Your task to perform on an android device: Open Youtube and go to the subscriptions tab Image 0: 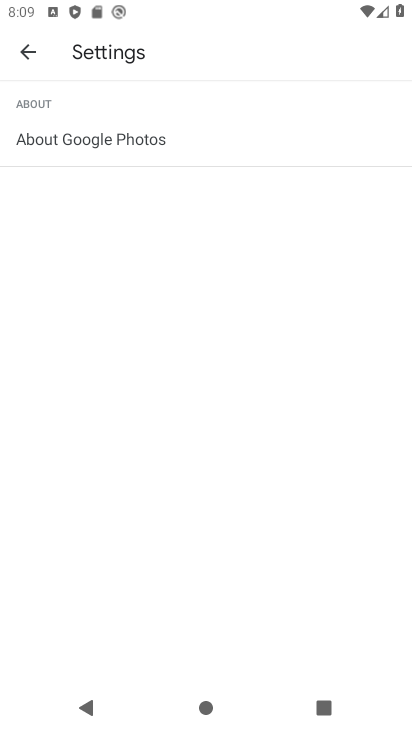
Step 0: press home button
Your task to perform on an android device: Open Youtube and go to the subscriptions tab Image 1: 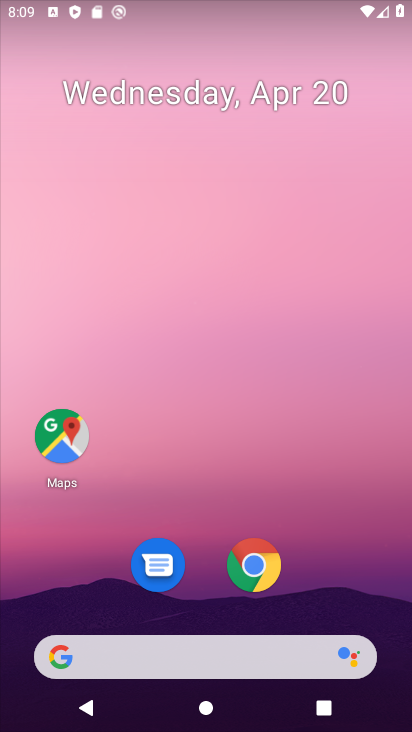
Step 1: drag from (353, 535) to (305, 112)
Your task to perform on an android device: Open Youtube and go to the subscriptions tab Image 2: 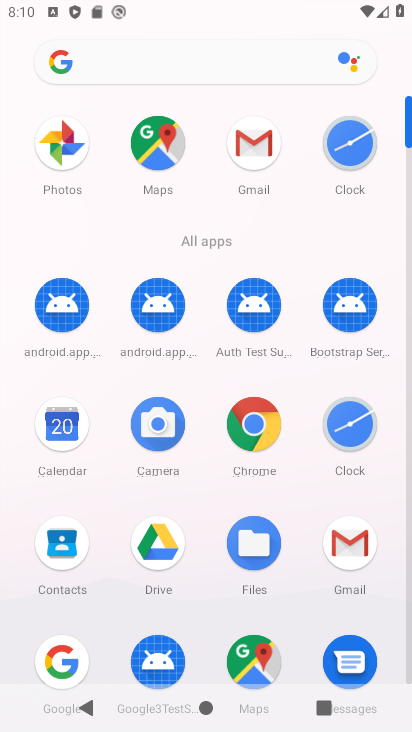
Step 2: drag from (390, 558) to (370, 305)
Your task to perform on an android device: Open Youtube and go to the subscriptions tab Image 3: 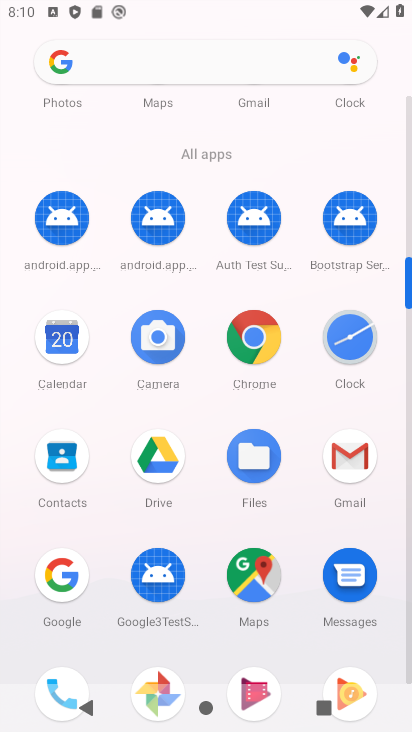
Step 3: drag from (386, 507) to (355, 275)
Your task to perform on an android device: Open Youtube and go to the subscriptions tab Image 4: 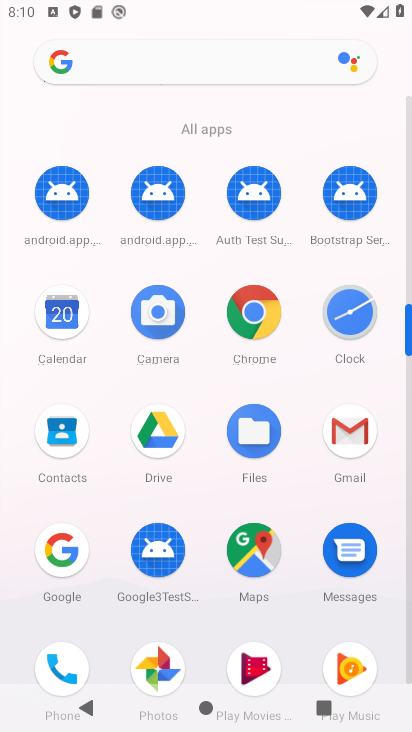
Step 4: drag from (390, 579) to (353, 271)
Your task to perform on an android device: Open Youtube and go to the subscriptions tab Image 5: 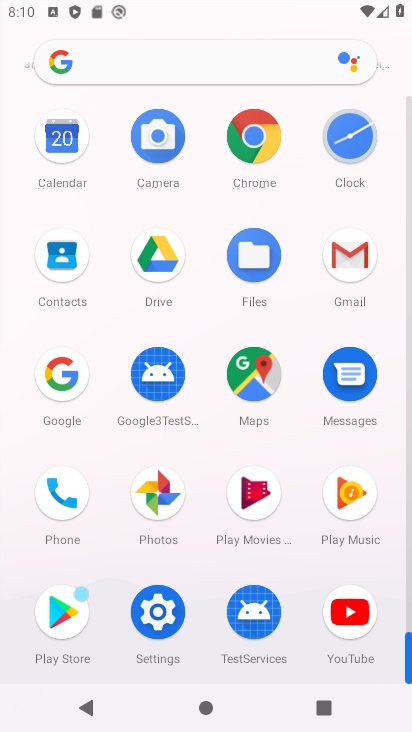
Step 5: click (352, 615)
Your task to perform on an android device: Open Youtube and go to the subscriptions tab Image 6: 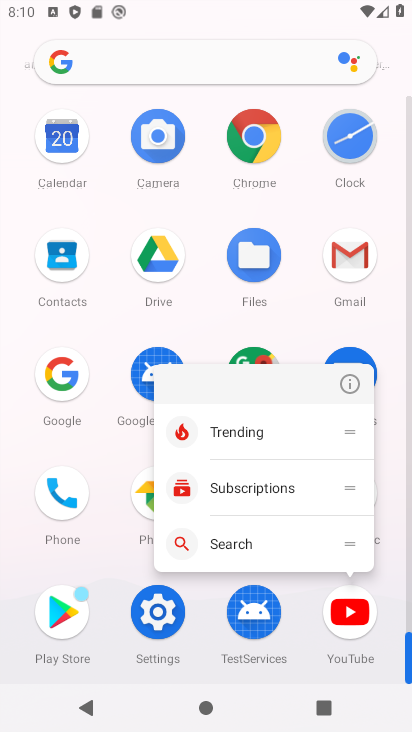
Step 6: click (352, 614)
Your task to perform on an android device: Open Youtube and go to the subscriptions tab Image 7: 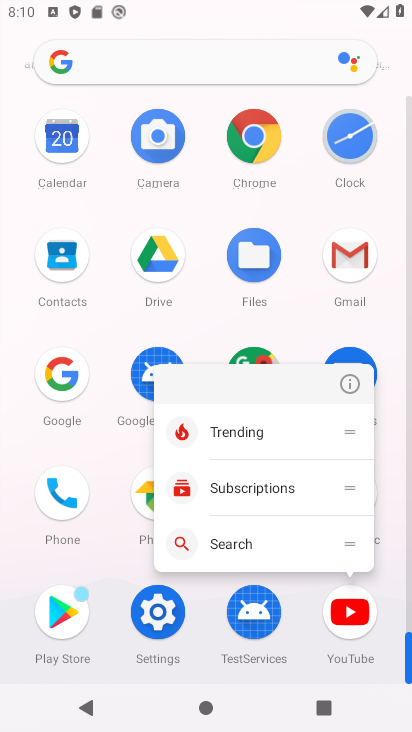
Step 7: click (352, 614)
Your task to perform on an android device: Open Youtube and go to the subscriptions tab Image 8: 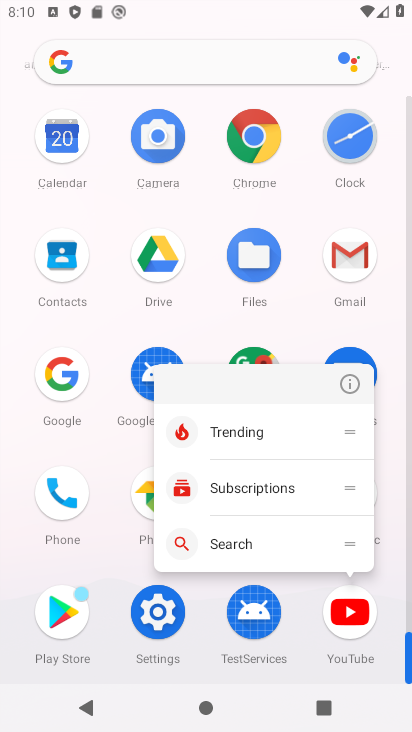
Step 8: click (352, 614)
Your task to perform on an android device: Open Youtube and go to the subscriptions tab Image 9: 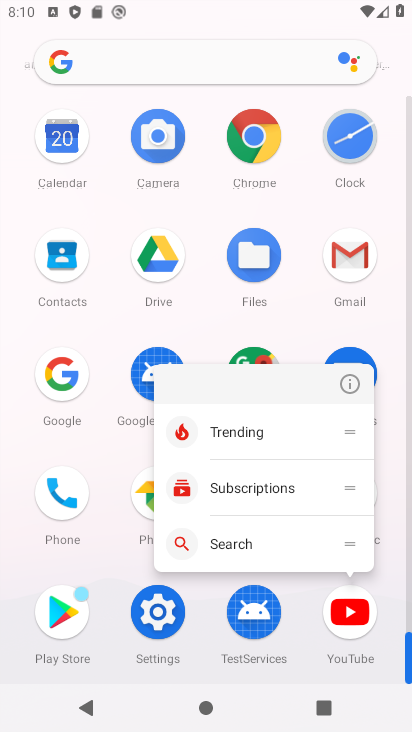
Step 9: click (352, 614)
Your task to perform on an android device: Open Youtube and go to the subscriptions tab Image 10: 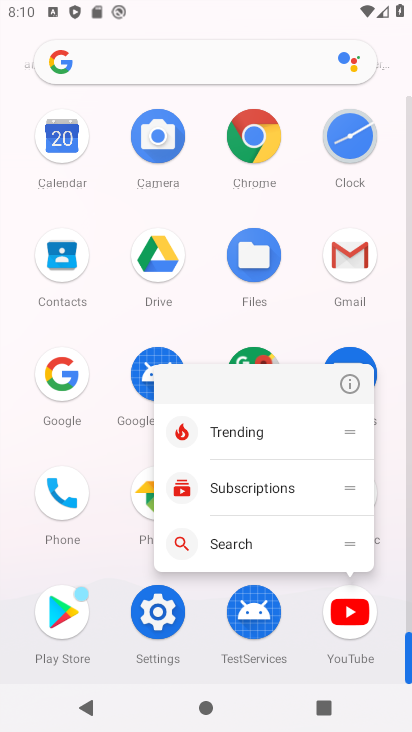
Step 10: click (352, 614)
Your task to perform on an android device: Open Youtube and go to the subscriptions tab Image 11: 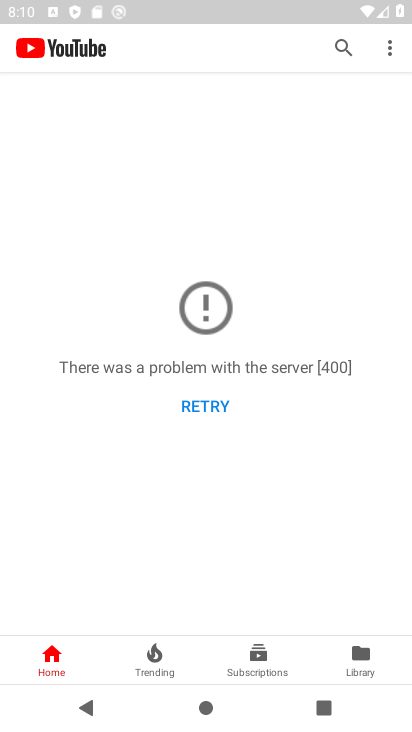
Step 11: click (255, 647)
Your task to perform on an android device: Open Youtube and go to the subscriptions tab Image 12: 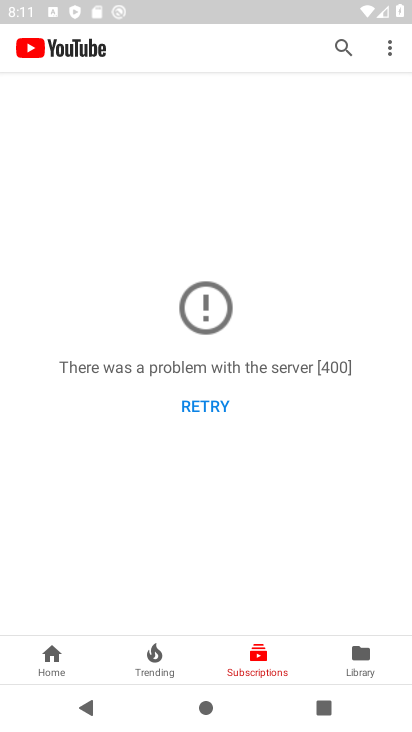
Step 12: task complete